Your task to perform on an android device: see tabs open on other devices in the chrome app Image 0: 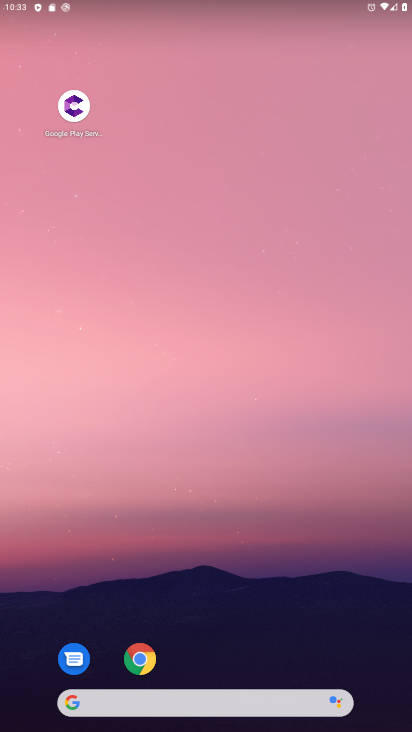
Step 0: click (152, 662)
Your task to perform on an android device: see tabs open on other devices in the chrome app Image 1: 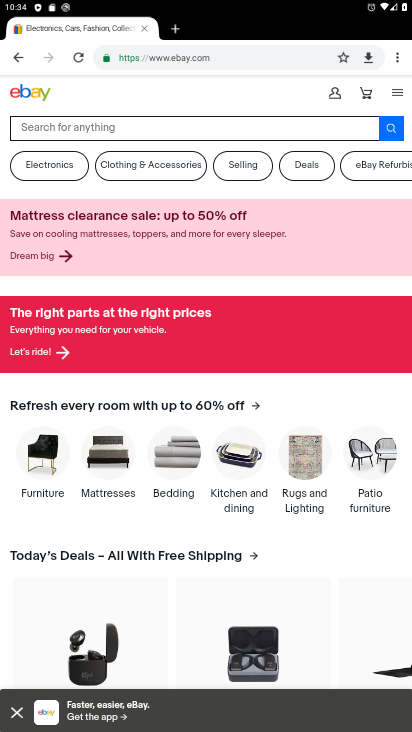
Step 1: click (406, 60)
Your task to perform on an android device: see tabs open on other devices in the chrome app Image 2: 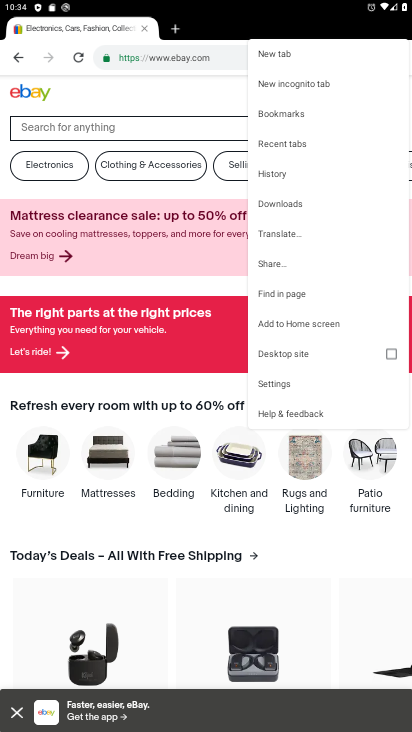
Step 2: click (307, 145)
Your task to perform on an android device: see tabs open on other devices in the chrome app Image 3: 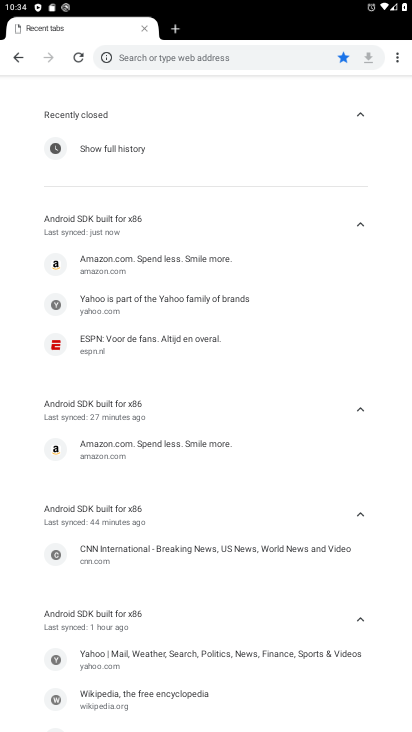
Step 3: task complete